Your task to perform on an android device: Open Google Maps and go to "Timeline" Image 0: 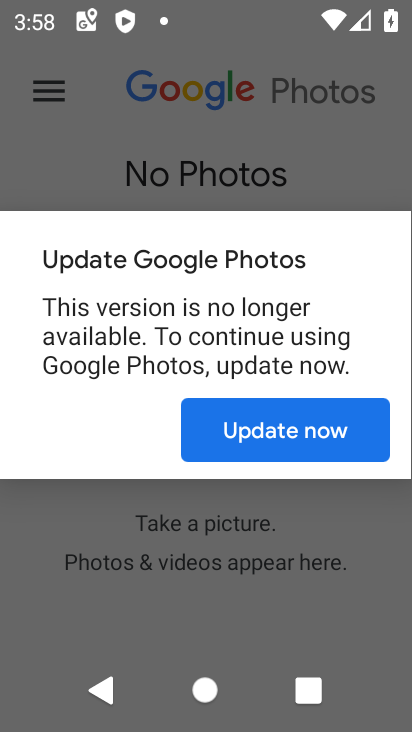
Step 0: press home button
Your task to perform on an android device: Open Google Maps and go to "Timeline" Image 1: 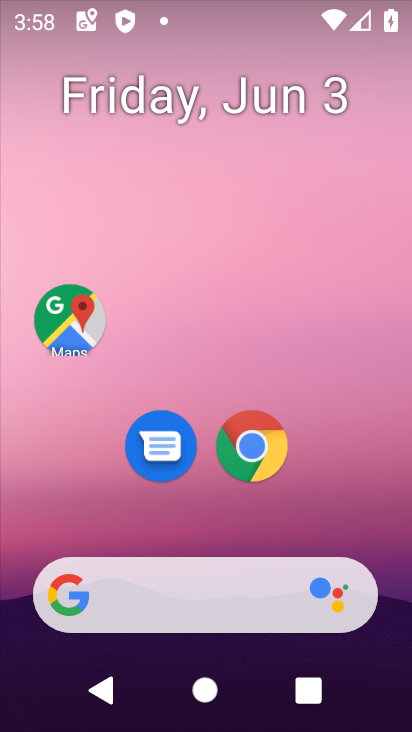
Step 1: task complete